Your task to perform on an android device: change the clock display to show seconds Image 0: 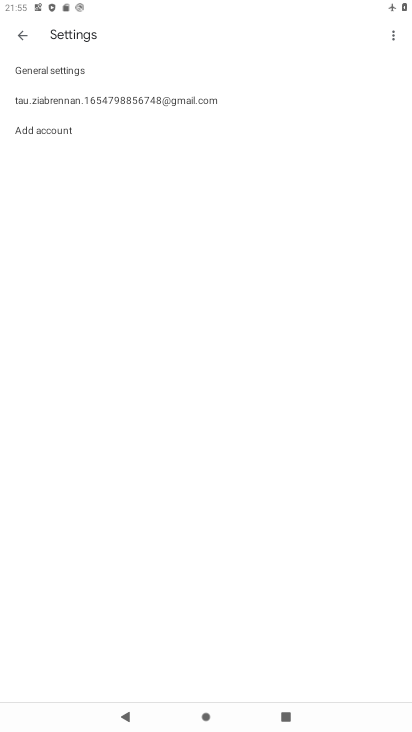
Step 0: press home button
Your task to perform on an android device: change the clock display to show seconds Image 1: 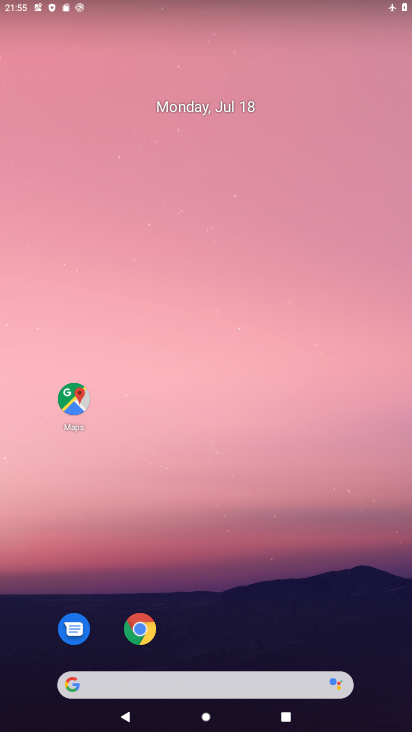
Step 1: drag from (339, 638) to (134, 30)
Your task to perform on an android device: change the clock display to show seconds Image 2: 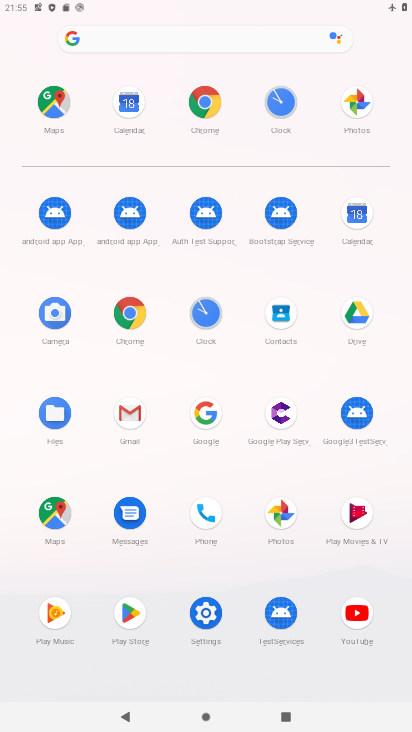
Step 2: click (275, 100)
Your task to perform on an android device: change the clock display to show seconds Image 3: 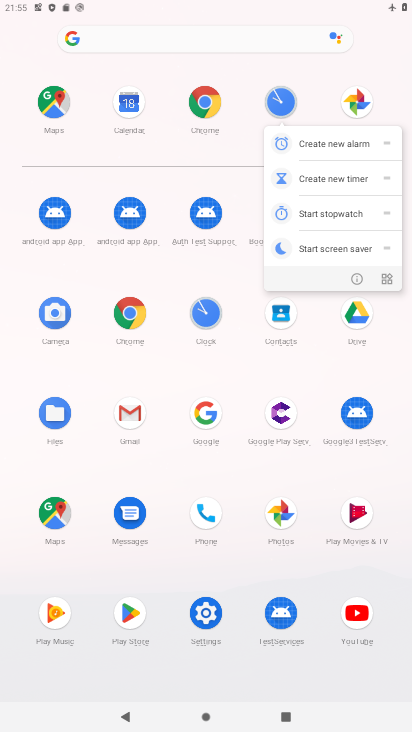
Step 3: click (284, 100)
Your task to perform on an android device: change the clock display to show seconds Image 4: 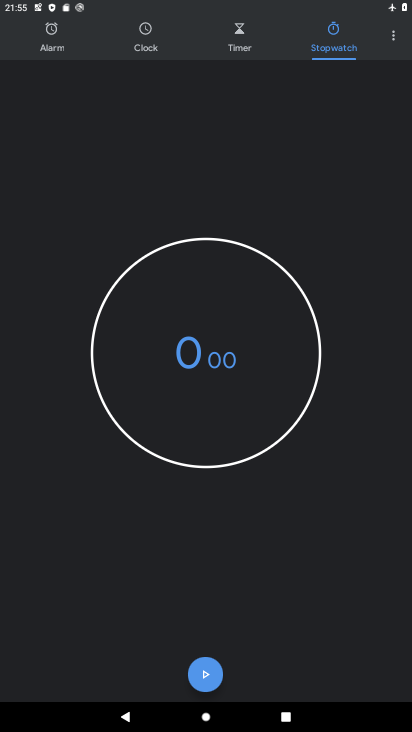
Step 4: click (217, 6)
Your task to perform on an android device: change the clock display to show seconds Image 5: 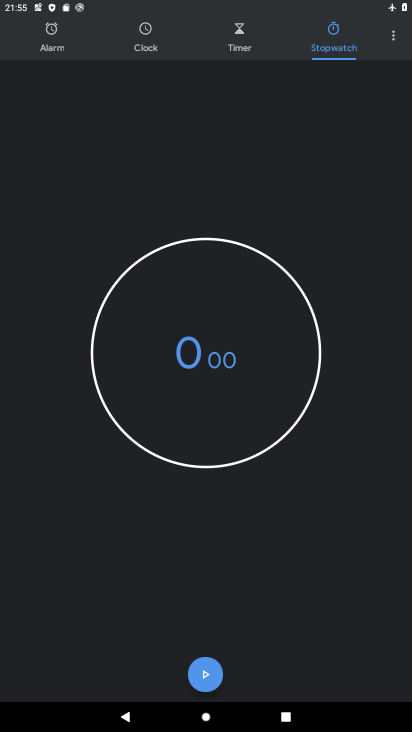
Step 5: click (384, 37)
Your task to perform on an android device: change the clock display to show seconds Image 6: 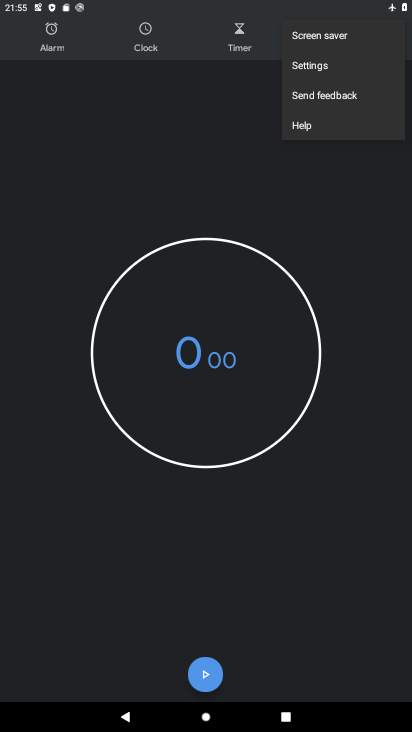
Step 6: click (323, 74)
Your task to perform on an android device: change the clock display to show seconds Image 7: 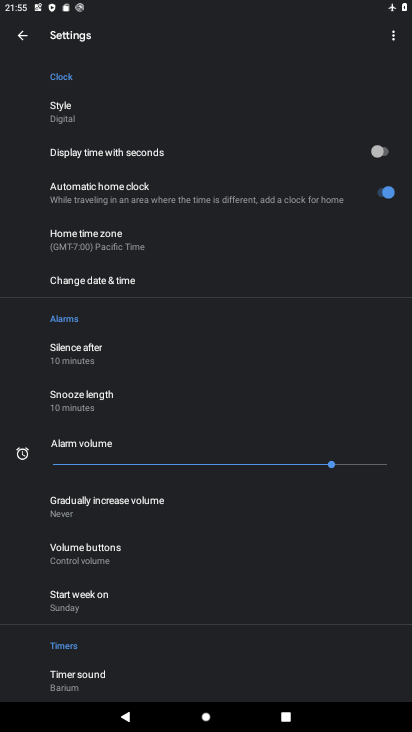
Step 7: click (379, 147)
Your task to perform on an android device: change the clock display to show seconds Image 8: 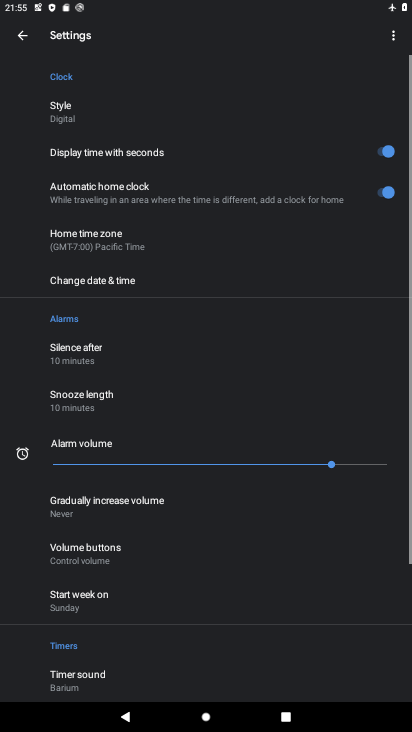
Step 8: task complete